Your task to perform on an android device: Open Chrome and go to settings Image 0: 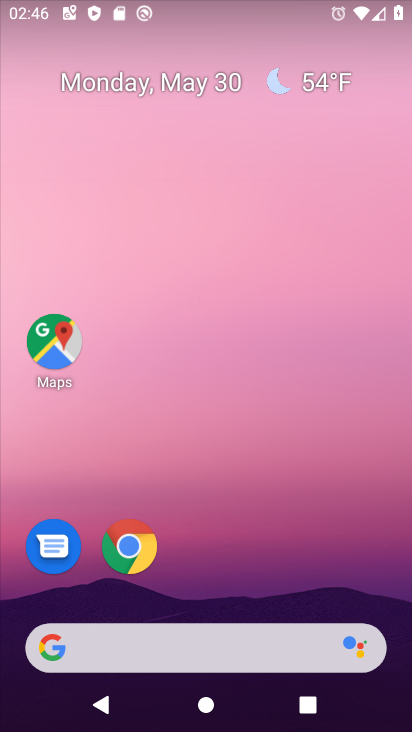
Step 0: press home button
Your task to perform on an android device: Open Chrome and go to settings Image 1: 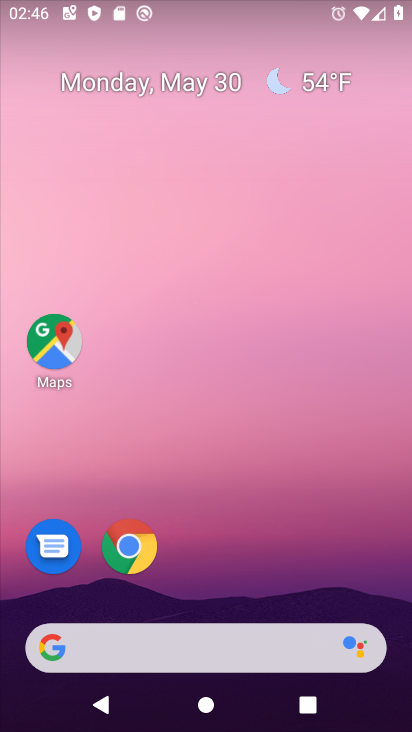
Step 1: click (122, 539)
Your task to perform on an android device: Open Chrome and go to settings Image 2: 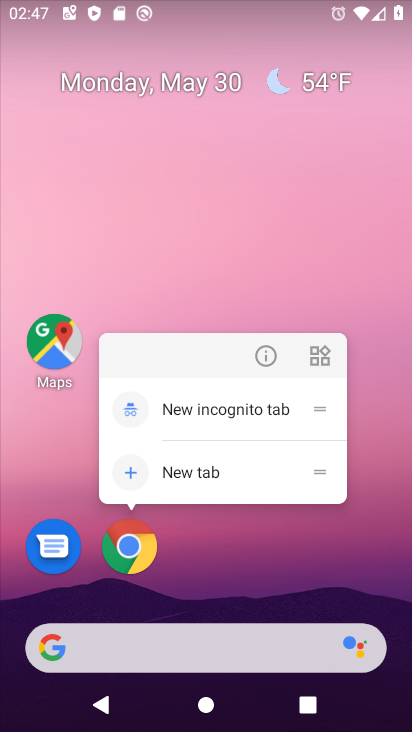
Step 2: click (122, 541)
Your task to perform on an android device: Open Chrome and go to settings Image 3: 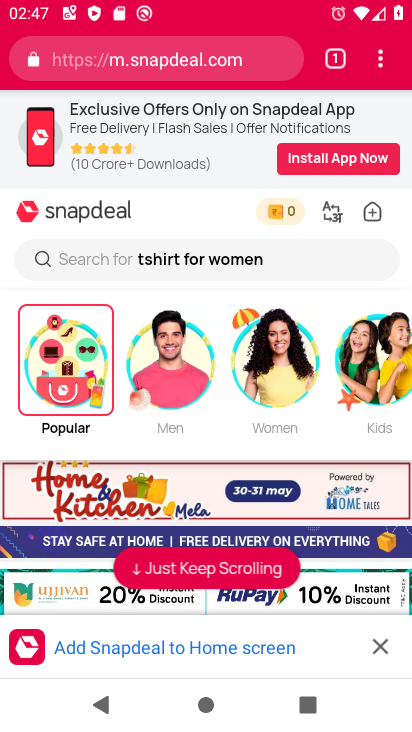
Step 3: click (385, 57)
Your task to perform on an android device: Open Chrome and go to settings Image 4: 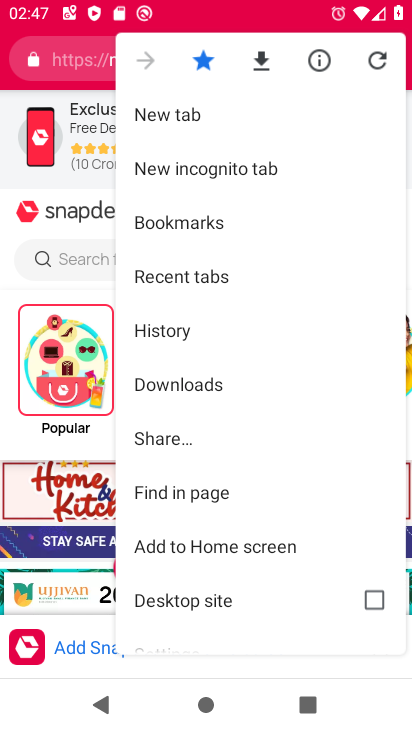
Step 4: drag from (235, 578) to (293, 274)
Your task to perform on an android device: Open Chrome and go to settings Image 5: 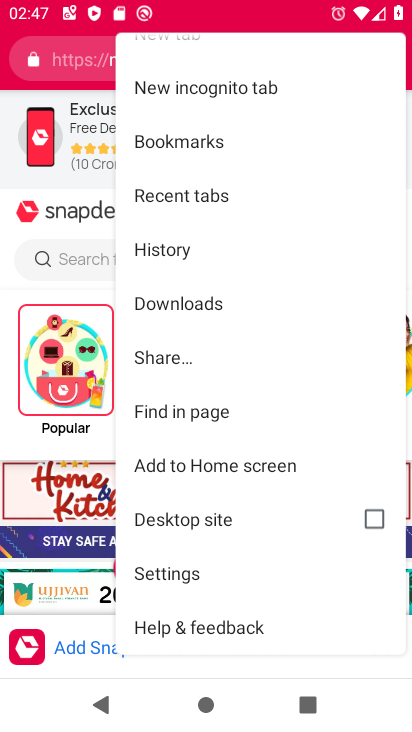
Step 5: click (207, 570)
Your task to perform on an android device: Open Chrome and go to settings Image 6: 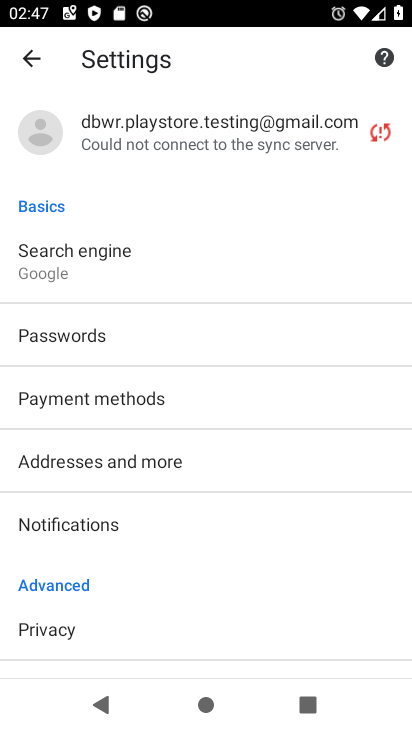
Step 6: click (163, 606)
Your task to perform on an android device: Open Chrome and go to settings Image 7: 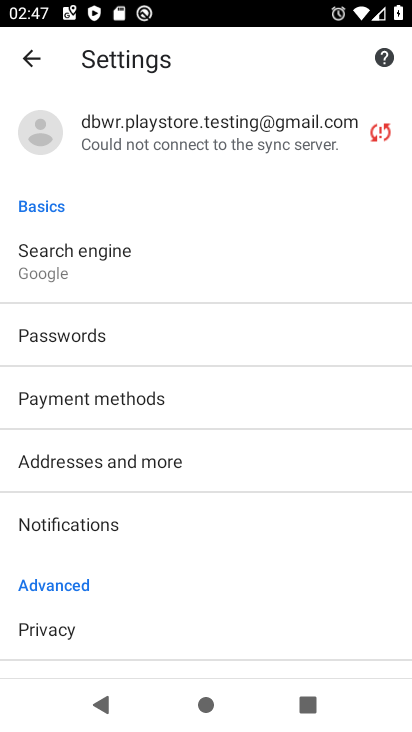
Step 7: drag from (182, 538) to (223, 229)
Your task to perform on an android device: Open Chrome and go to settings Image 8: 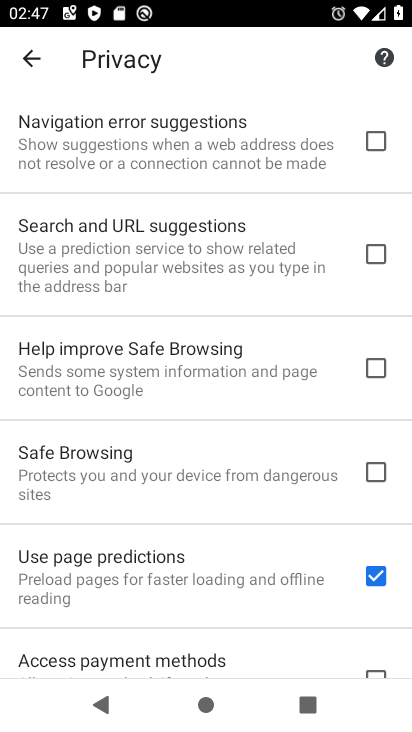
Step 8: click (43, 59)
Your task to perform on an android device: Open Chrome and go to settings Image 9: 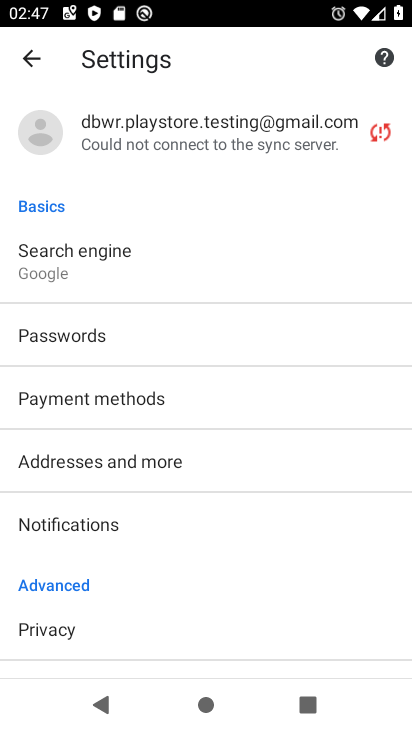
Step 9: task complete